Your task to perform on an android device: When is my next meeting? Image 0: 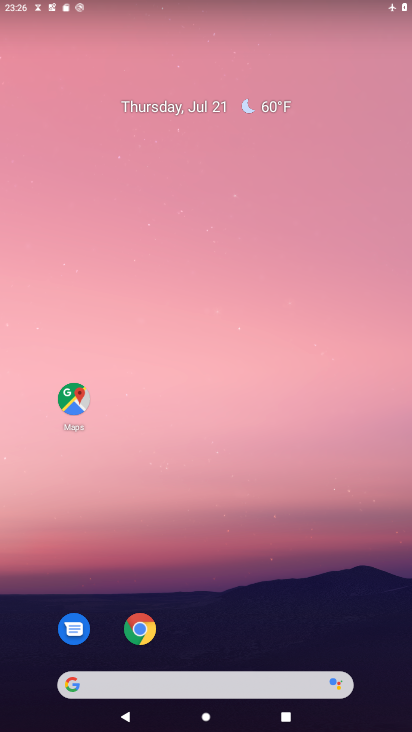
Step 0: drag from (198, 605) to (272, 147)
Your task to perform on an android device: When is my next meeting? Image 1: 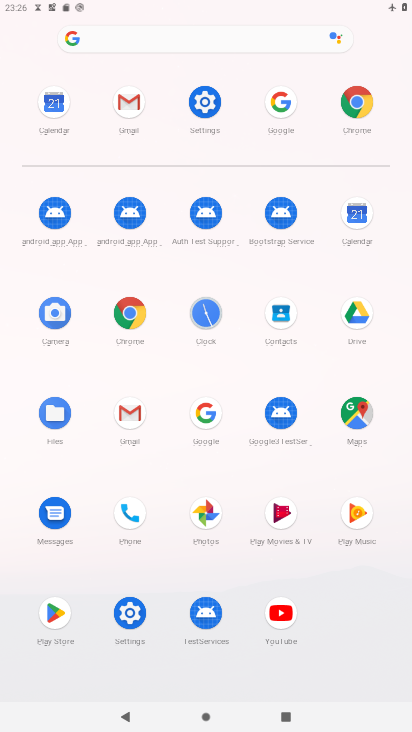
Step 1: click (358, 211)
Your task to perform on an android device: When is my next meeting? Image 2: 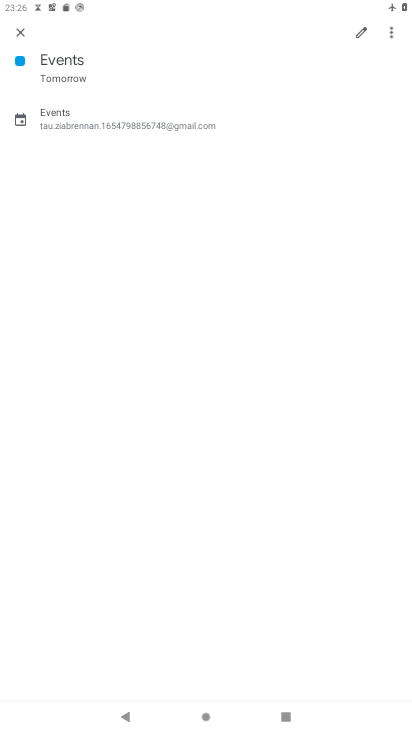
Step 2: click (22, 21)
Your task to perform on an android device: When is my next meeting? Image 3: 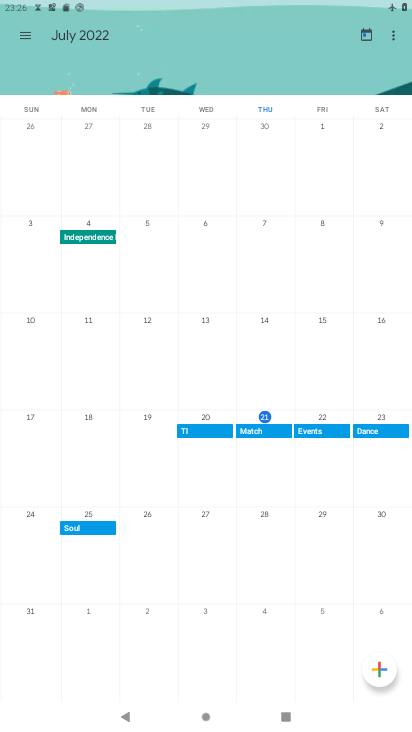
Step 3: click (380, 419)
Your task to perform on an android device: When is my next meeting? Image 4: 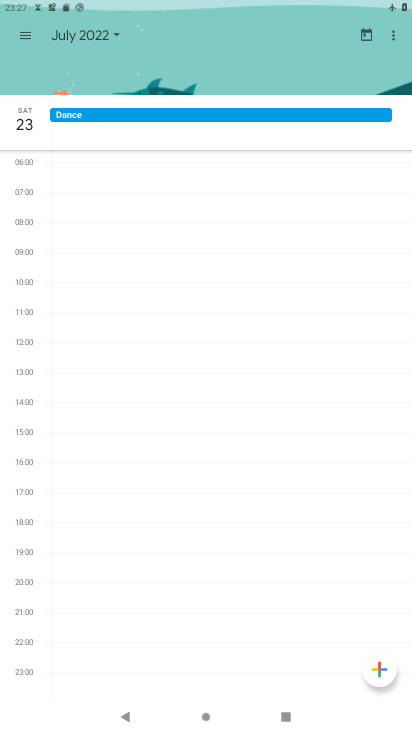
Step 4: task complete